Your task to perform on an android device: Search for Mexican restaurants on Maps Image 0: 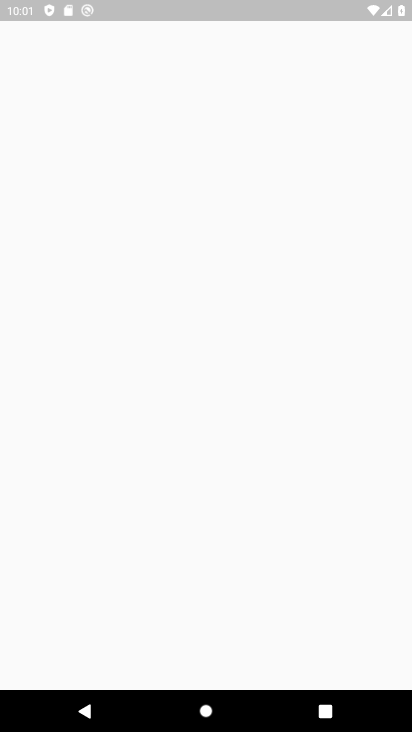
Step 0: press home button
Your task to perform on an android device: Search for Mexican restaurants on Maps Image 1: 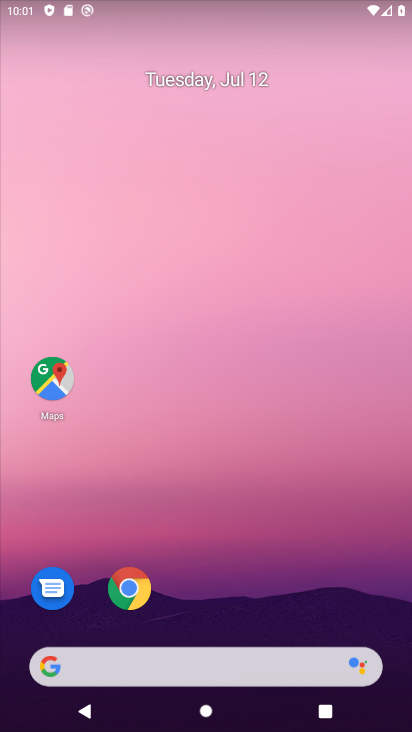
Step 1: drag from (190, 647) to (298, 139)
Your task to perform on an android device: Search for Mexican restaurants on Maps Image 2: 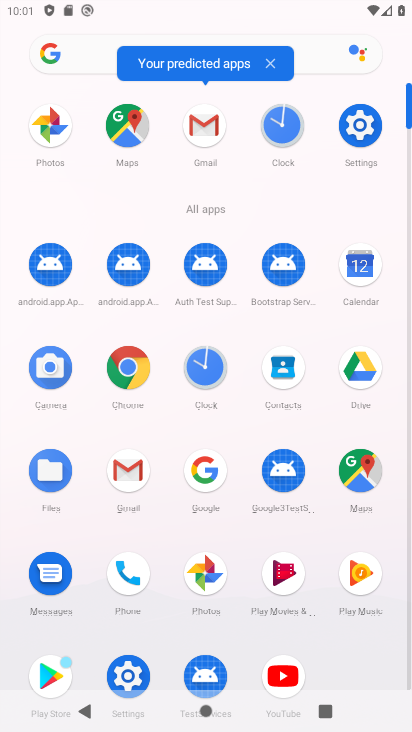
Step 2: click (358, 458)
Your task to perform on an android device: Search for Mexican restaurants on Maps Image 3: 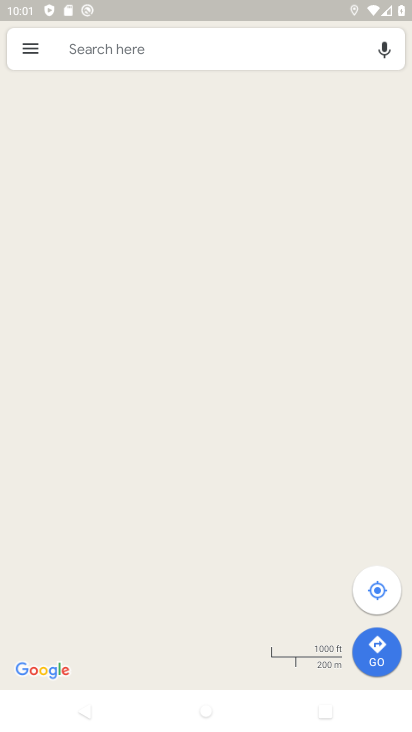
Step 3: click (86, 47)
Your task to perform on an android device: Search for Mexican restaurants on Maps Image 4: 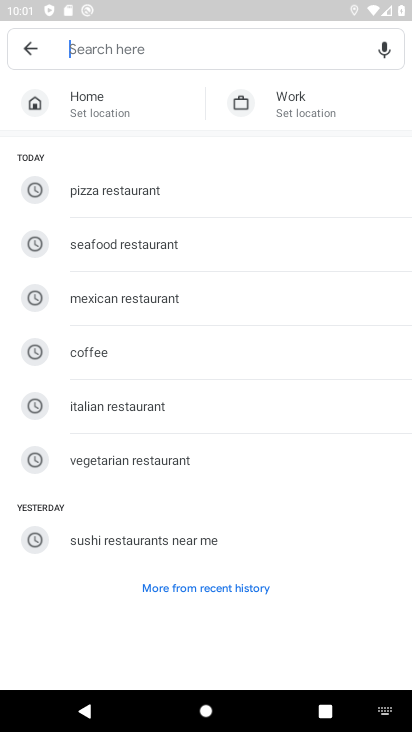
Step 4: type "Mexican restaurants"
Your task to perform on an android device: Search for Mexican restaurants on Maps Image 5: 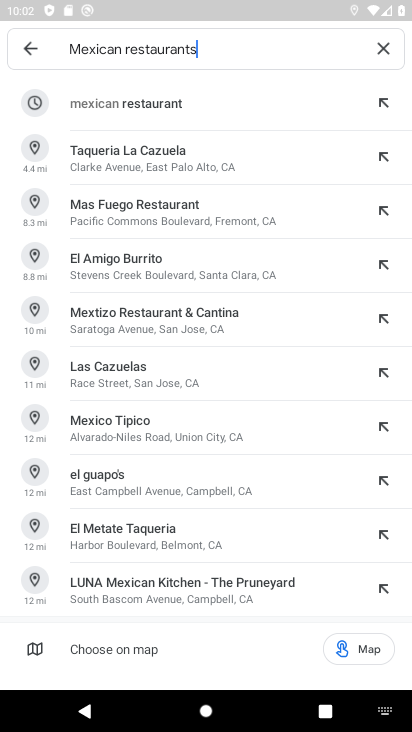
Step 5: click (186, 94)
Your task to perform on an android device: Search for Mexican restaurants on Maps Image 6: 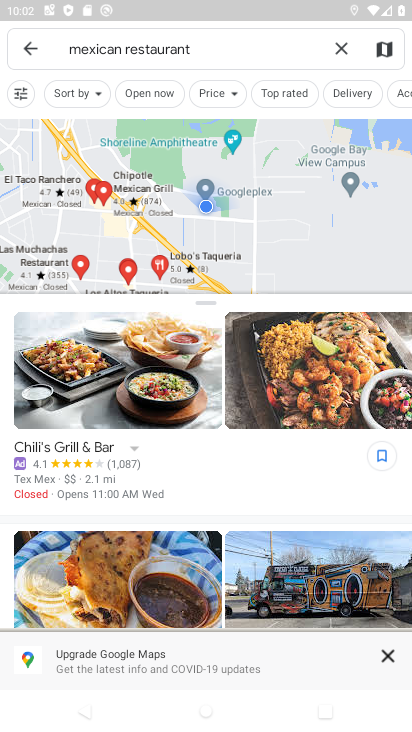
Step 6: task complete